Your task to perform on an android device: change keyboard looks Image 0: 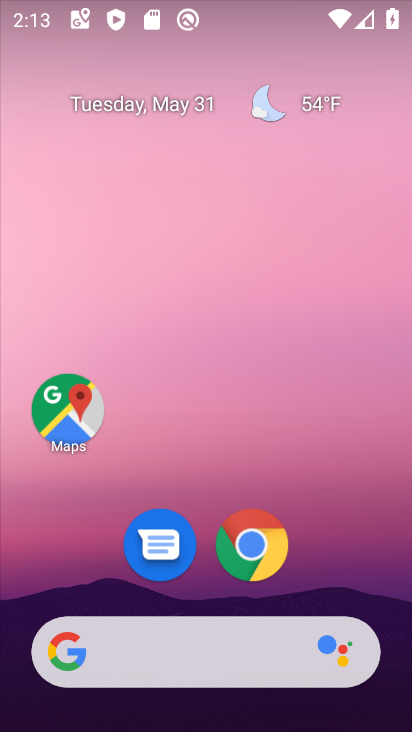
Step 0: drag from (363, 601) to (307, 142)
Your task to perform on an android device: change keyboard looks Image 1: 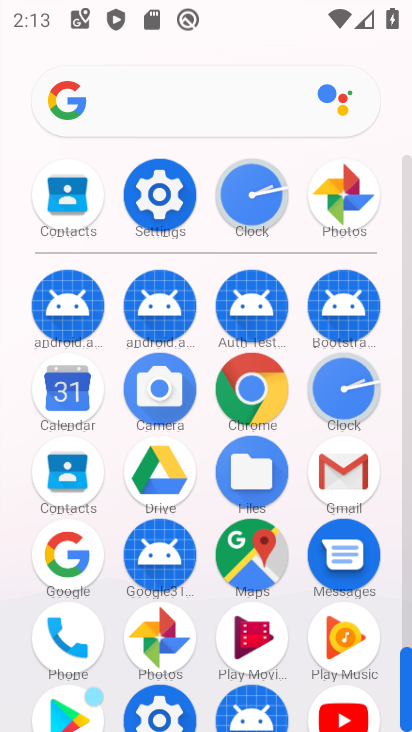
Step 1: click (175, 219)
Your task to perform on an android device: change keyboard looks Image 2: 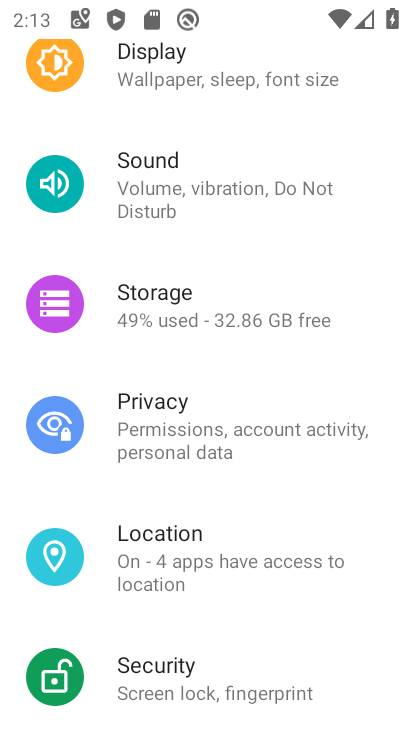
Step 2: drag from (292, 625) to (261, 51)
Your task to perform on an android device: change keyboard looks Image 3: 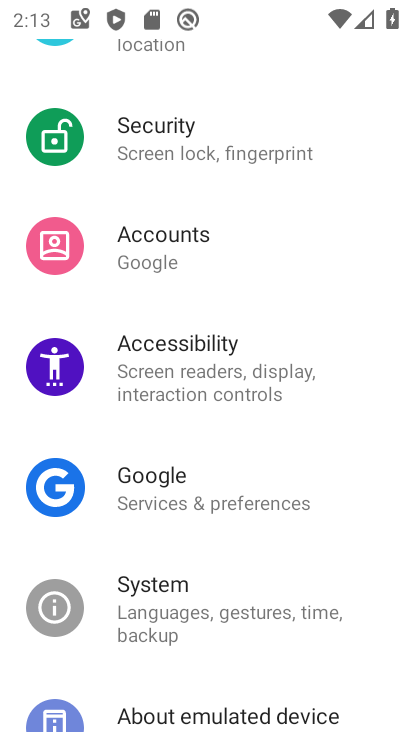
Step 3: drag from (277, 615) to (259, 230)
Your task to perform on an android device: change keyboard looks Image 4: 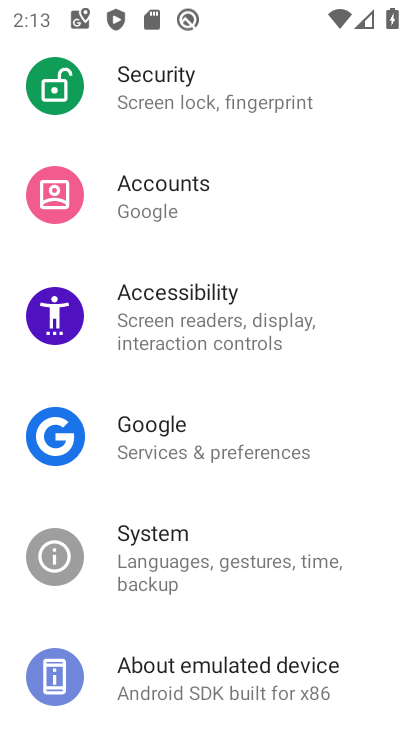
Step 4: click (227, 532)
Your task to perform on an android device: change keyboard looks Image 5: 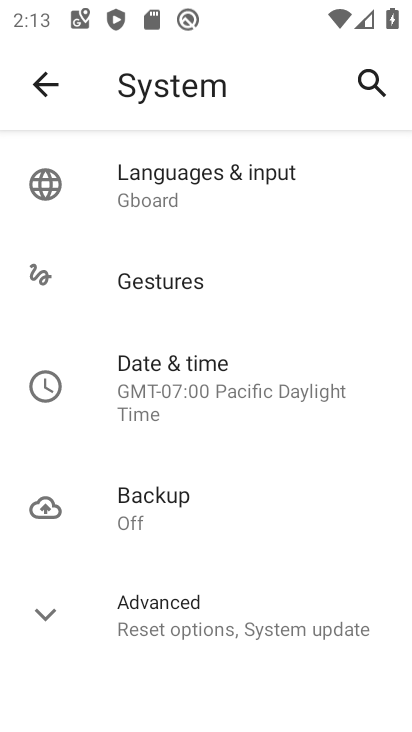
Step 5: click (207, 173)
Your task to perform on an android device: change keyboard looks Image 6: 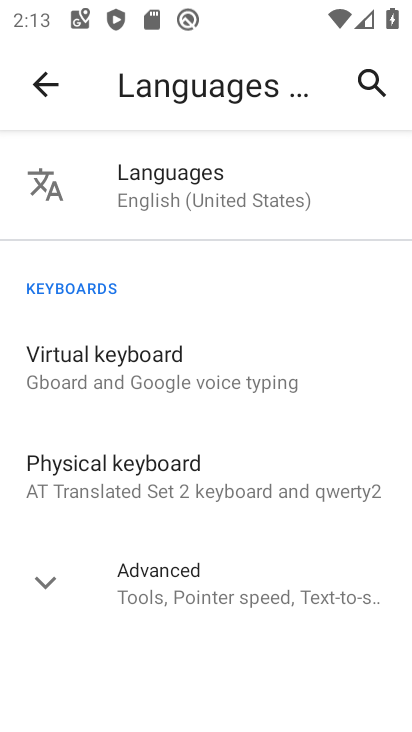
Step 6: click (203, 363)
Your task to perform on an android device: change keyboard looks Image 7: 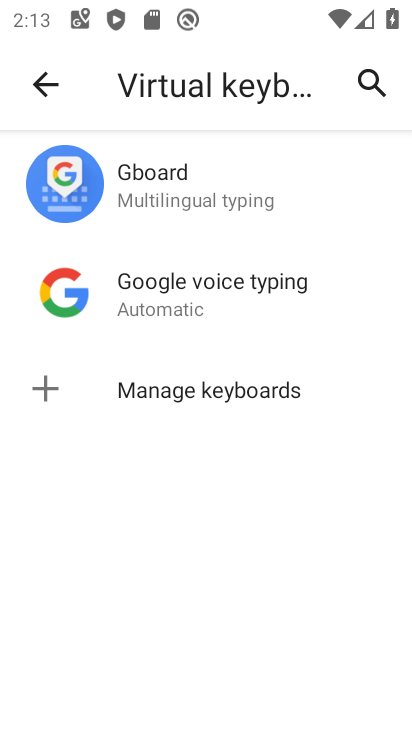
Step 7: click (186, 195)
Your task to perform on an android device: change keyboard looks Image 8: 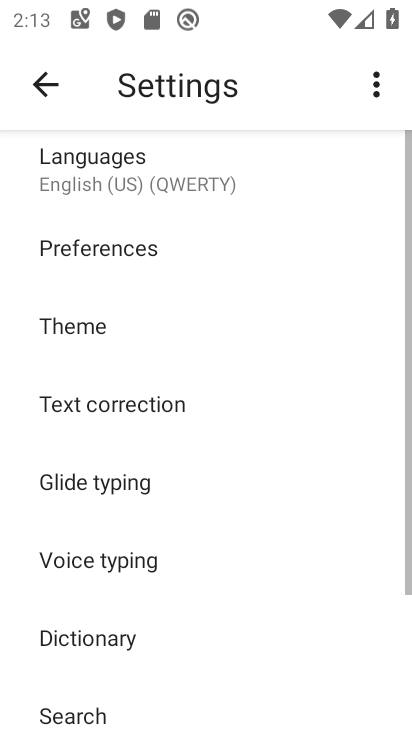
Step 8: click (157, 327)
Your task to perform on an android device: change keyboard looks Image 9: 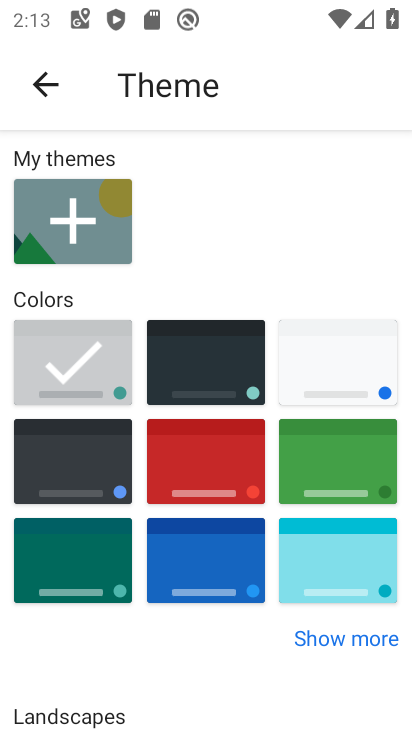
Step 9: click (211, 489)
Your task to perform on an android device: change keyboard looks Image 10: 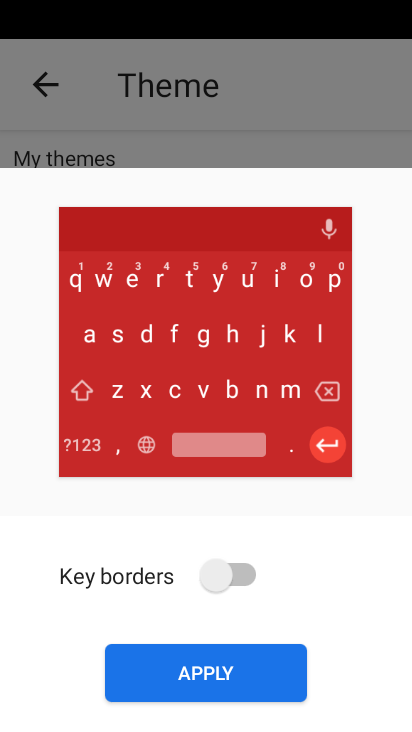
Step 10: click (237, 579)
Your task to perform on an android device: change keyboard looks Image 11: 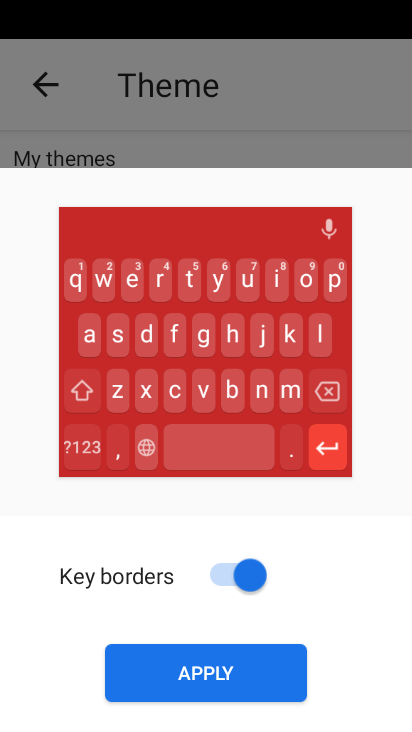
Step 11: click (228, 654)
Your task to perform on an android device: change keyboard looks Image 12: 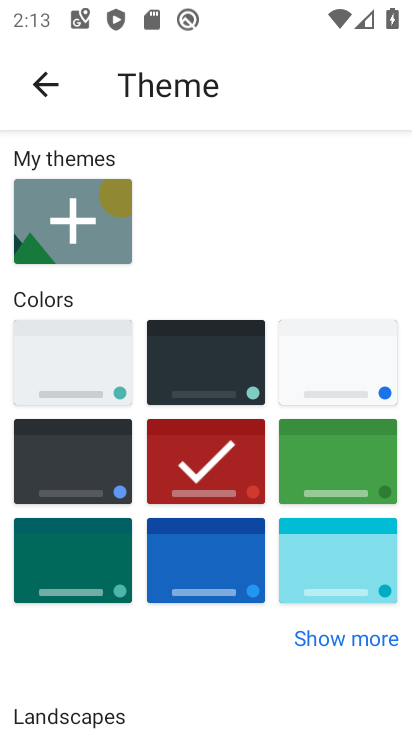
Step 12: task complete